Your task to perform on an android device: Is it going to rain tomorrow? Image 0: 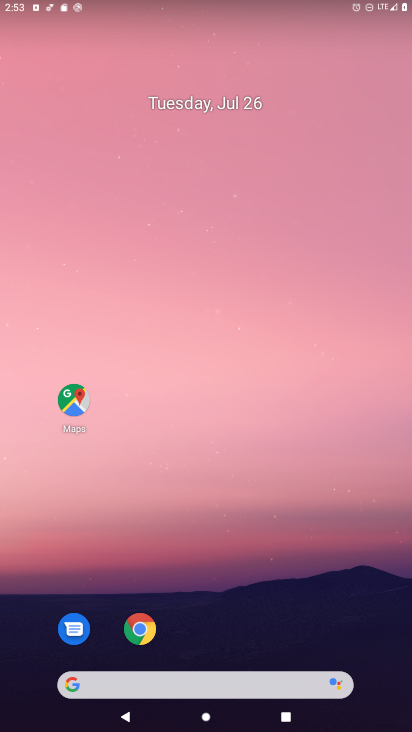
Step 0: drag from (378, 663) to (294, 281)
Your task to perform on an android device: Is it going to rain tomorrow? Image 1: 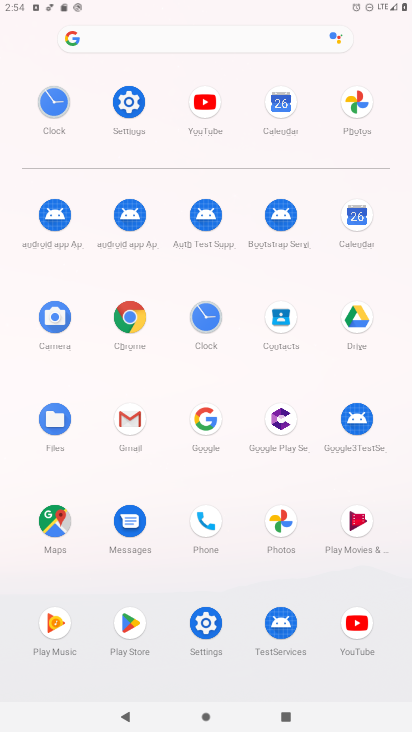
Step 1: click (124, 40)
Your task to perform on an android device: Is it going to rain tomorrow? Image 2: 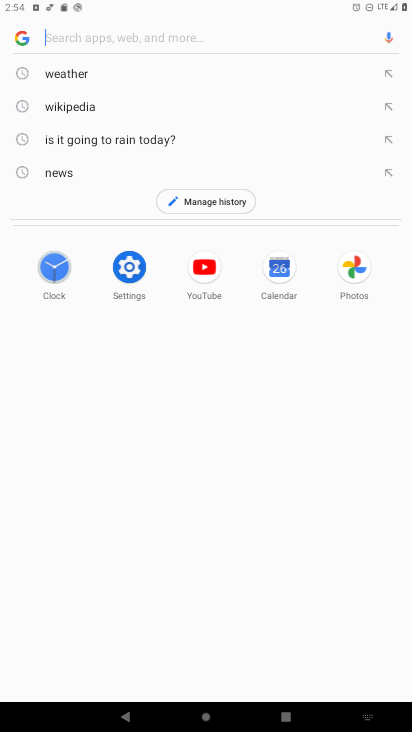
Step 2: click (63, 74)
Your task to perform on an android device: Is it going to rain tomorrow? Image 3: 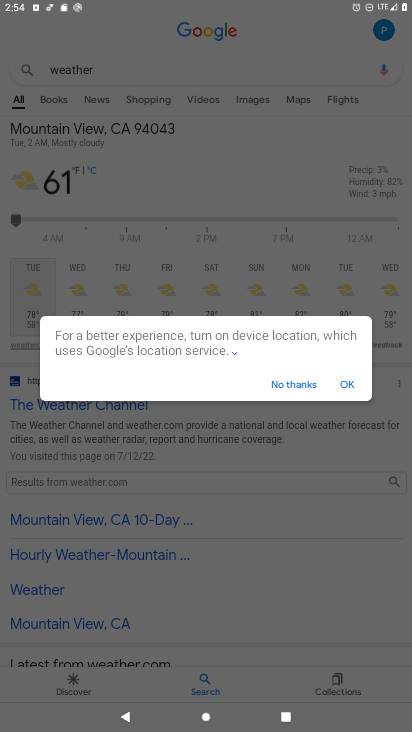
Step 3: click (346, 382)
Your task to perform on an android device: Is it going to rain tomorrow? Image 4: 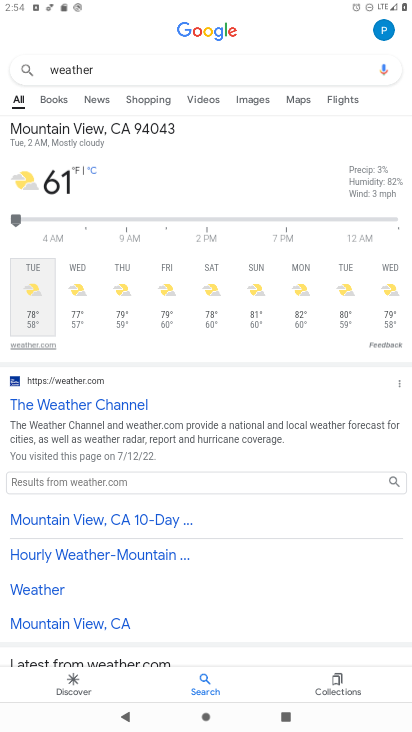
Step 4: task complete